Your task to perform on an android device: toggle wifi Image 0: 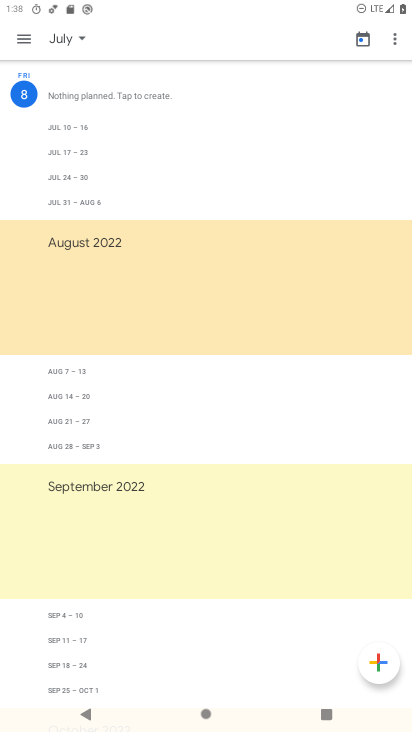
Step 0: press home button
Your task to perform on an android device: toggle wifi Image 1: 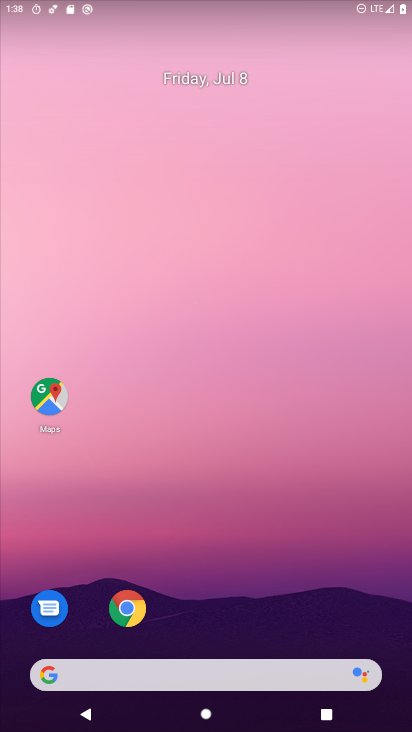
Step 1: drag from (231, 712) to (224, 61)
Your task to perform on an android device: toggle wifi Image 2: 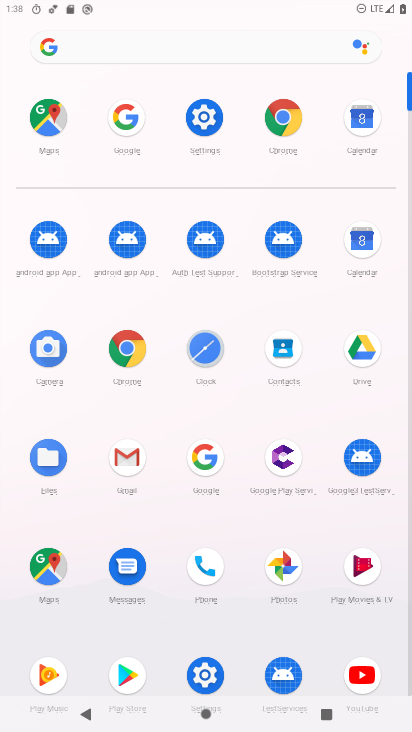
Step 2: click (204, 114)
Your task to perform on an android device: toggle wifi Image 3: 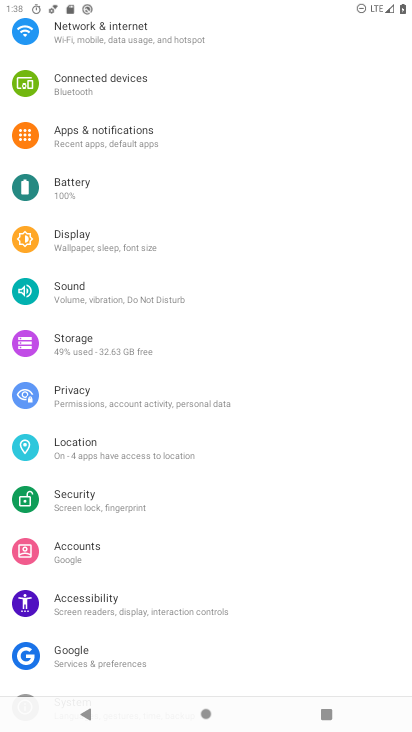
Step 3: drag from (205, 154) to (198, 437)
Your task to perform on an android device: toggle wifi Image 4: 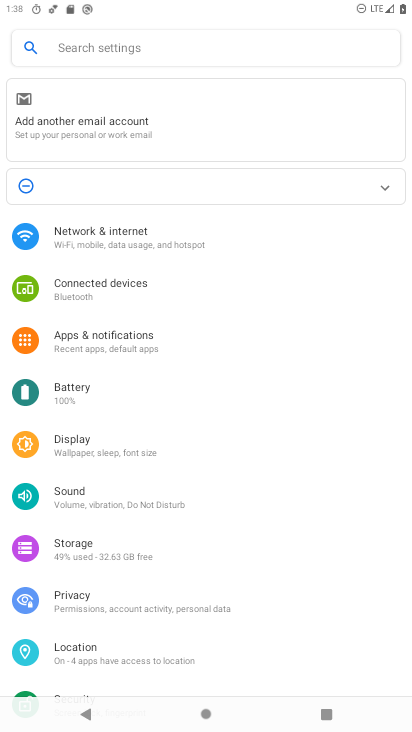
Step 4: click (106, 233)
Your task to perform on an android device: toggle wifi Image 5: 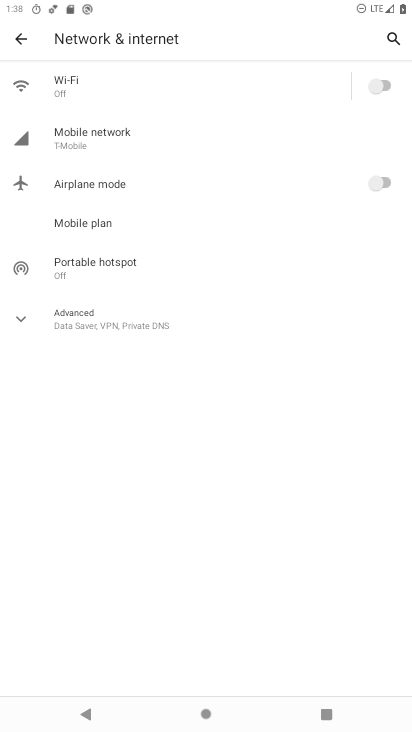
Step 5: click (387, 80)
Your task to perform on an android device: toggle wifi Image 6: 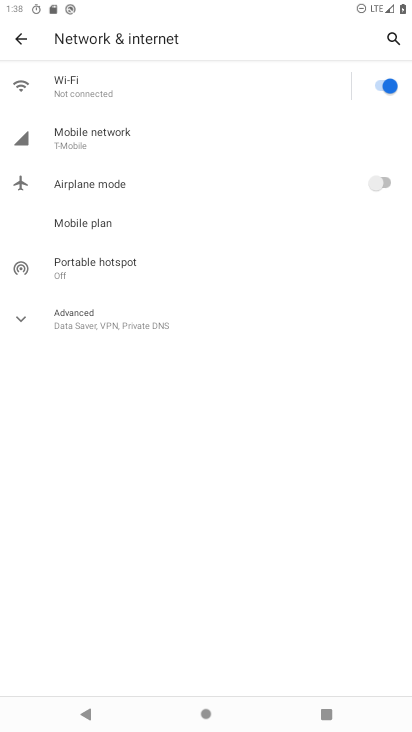
Step 6: task complete